Your task to perform on an android device: Open Youtube and go to "Your channel" Image 0: 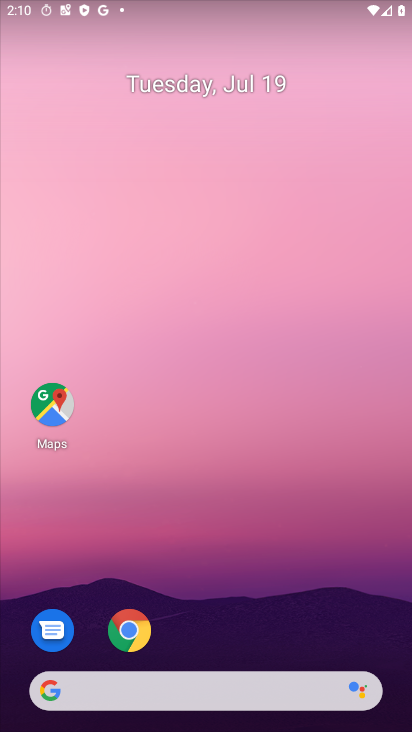
Step 0: drag from (235, 602) to (260, 48)
Your task to perform on an android device: Open Youtube and go to "Your channel" Image 1: 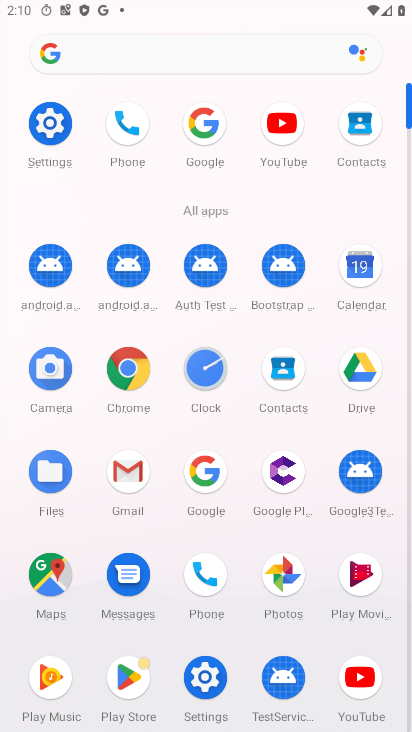
Step 1: click (295, 135)
Your task to perform on an android device: Open Youtube and go to "Your channel" Image 2: 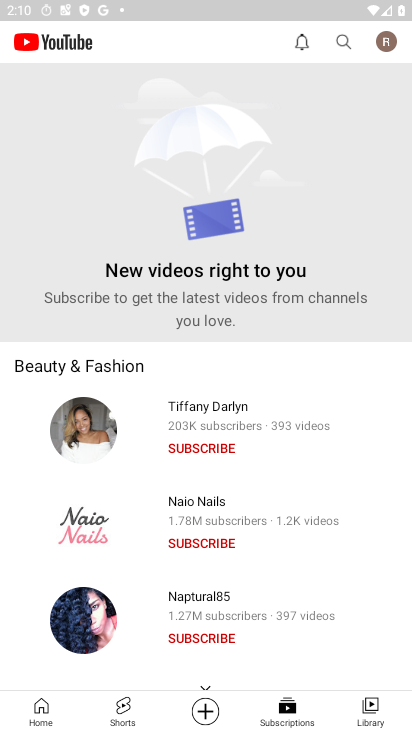
Step 2: click (380, 41)
Your task to perform on an android device: Open Youtube and go to "Your channel" Image 3: 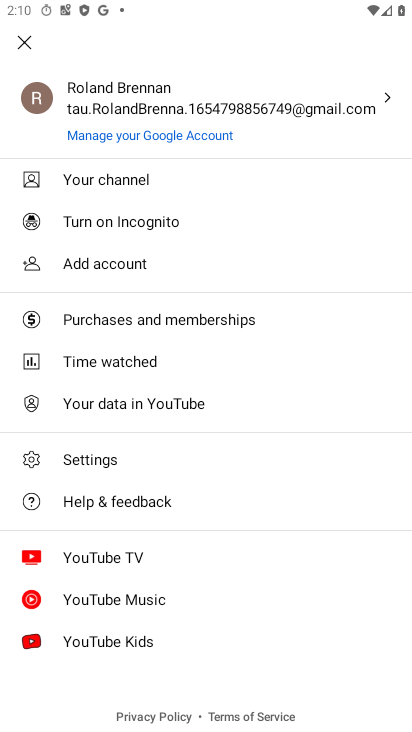
Step 3: click (149, 181)
Your task to perform on an android device: Open Youtube and go to "Your channel" Image 4: 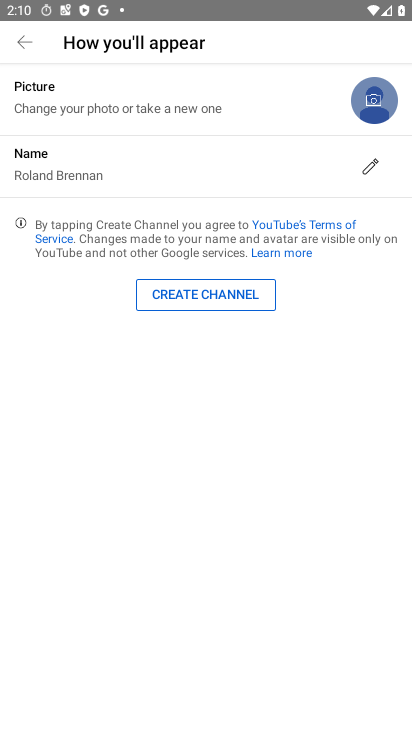
Step 4: task complete